Your task to perform on an android device: Add "alienware aurora" to the cart on newegg.com Image 0: 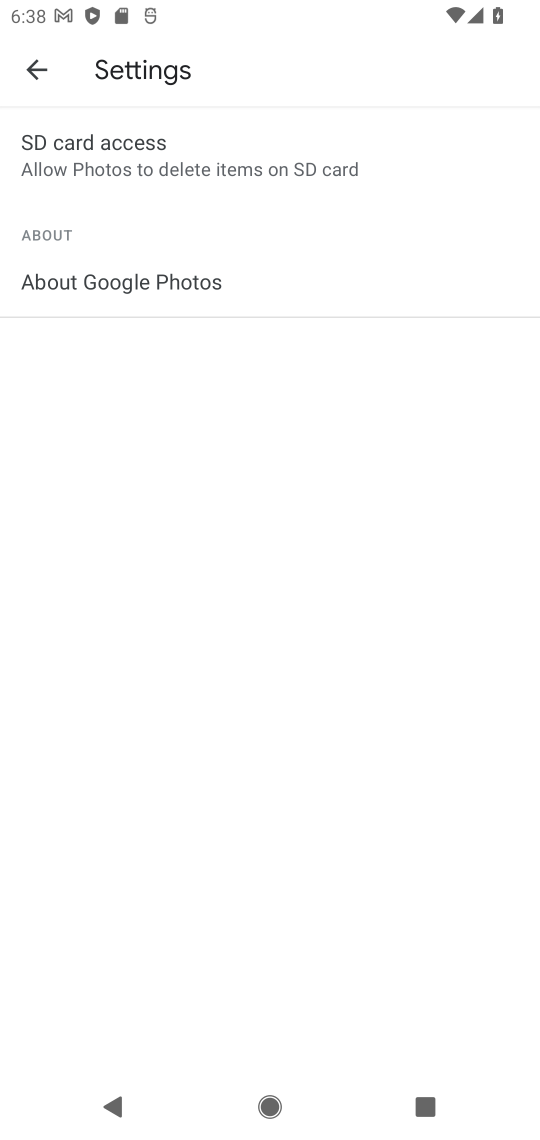
Step 0: press home button
Your task to perform on an android device: Add "alienware aurora" to the cart on newegg.com Image 1: 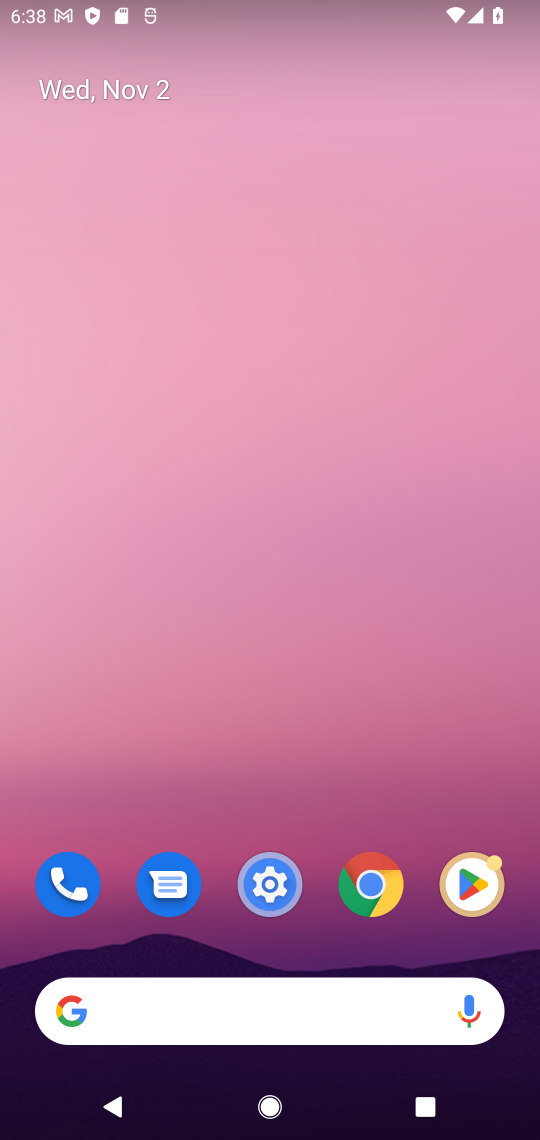
Step 1: click (210, 1039)
Your task to perform on an android device: Add "alienware aurora" to the cart on newegg.com Image 2: 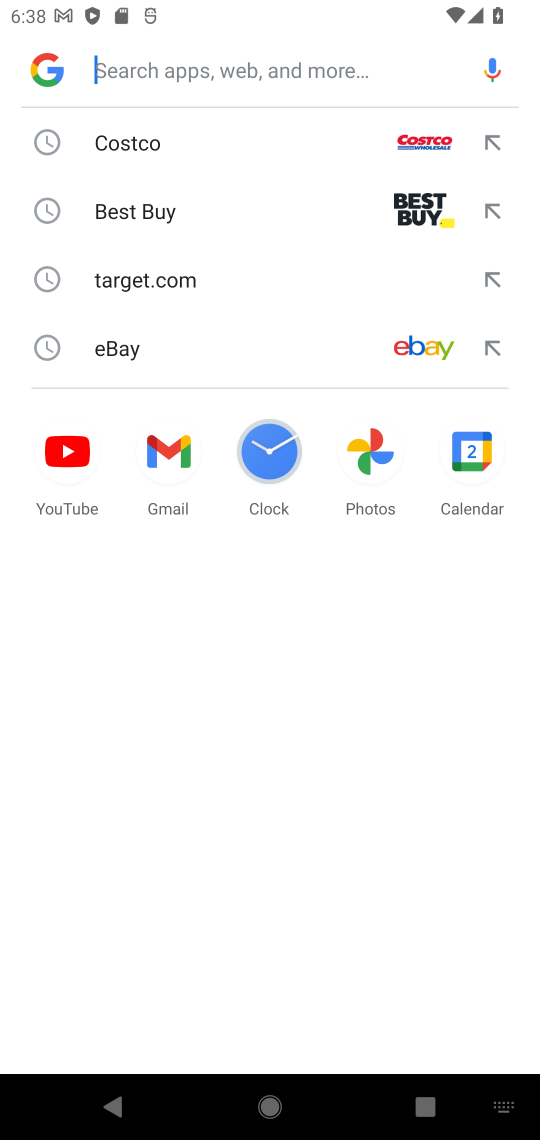
Step 2: type "newegg"
Your task to perform on an android device: Add "alienware aurora" to the cart on newegg.com Image 3: 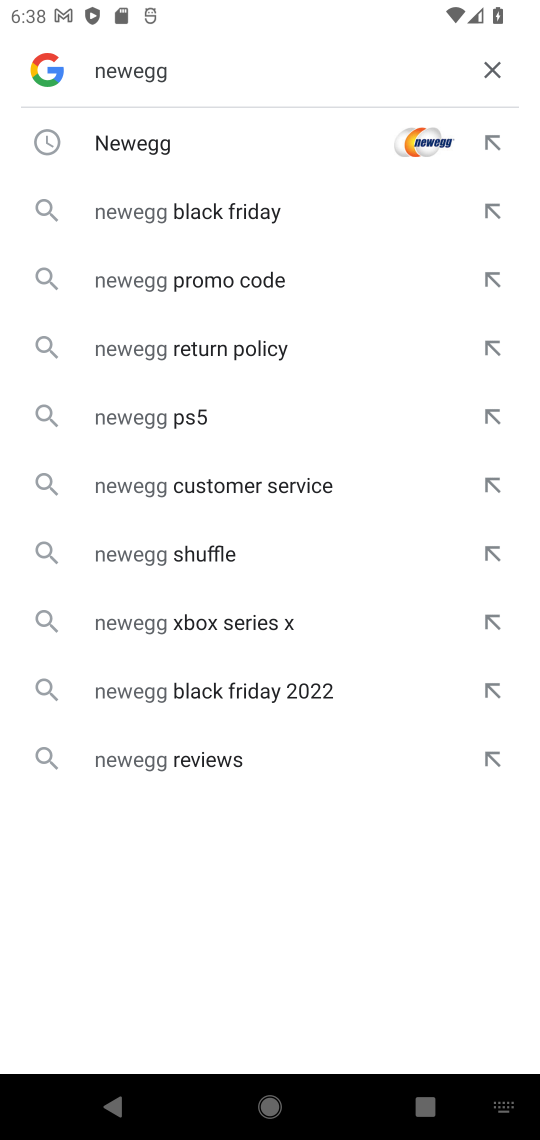
Step 3: click (219, 139)
Your task to perform on an android device: Add "alienware aurora" to the cart on newegg.com Image 4: 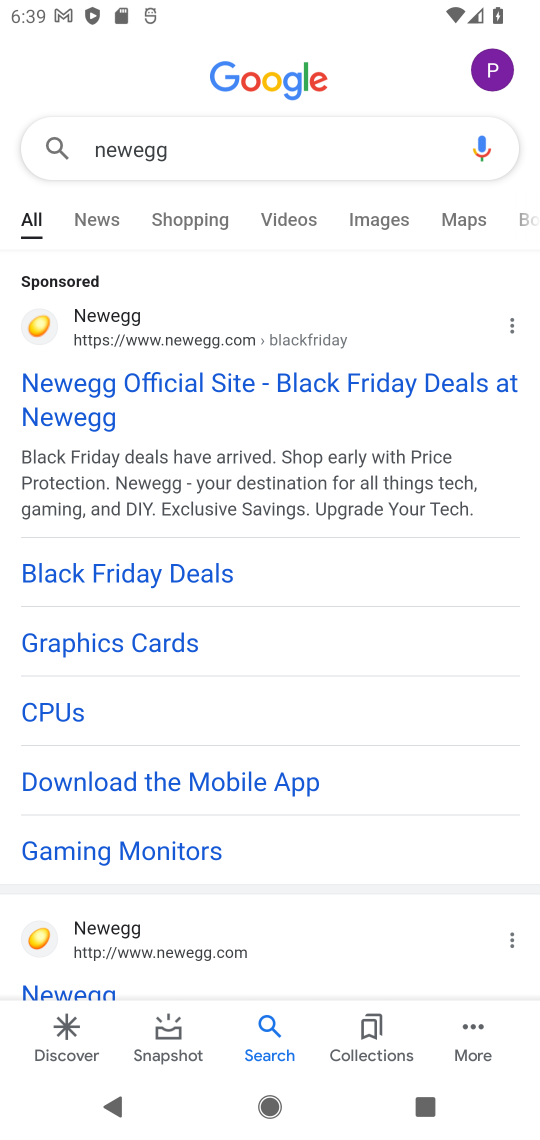
Step 4: click (129, 376)
Your task to perform on an android device: Add "alienware aurora" to the cart on newegg.com Image 5: 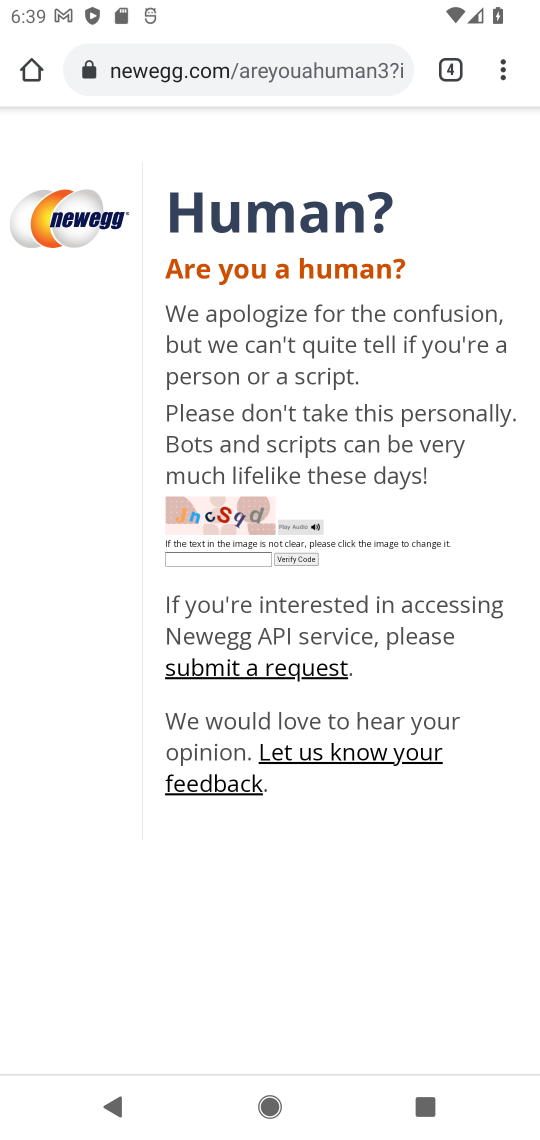
Step 5: click (235, 564)
Your task to perform on an android device: Add "alienware aurora" to the cart on newegg.com Image 6: 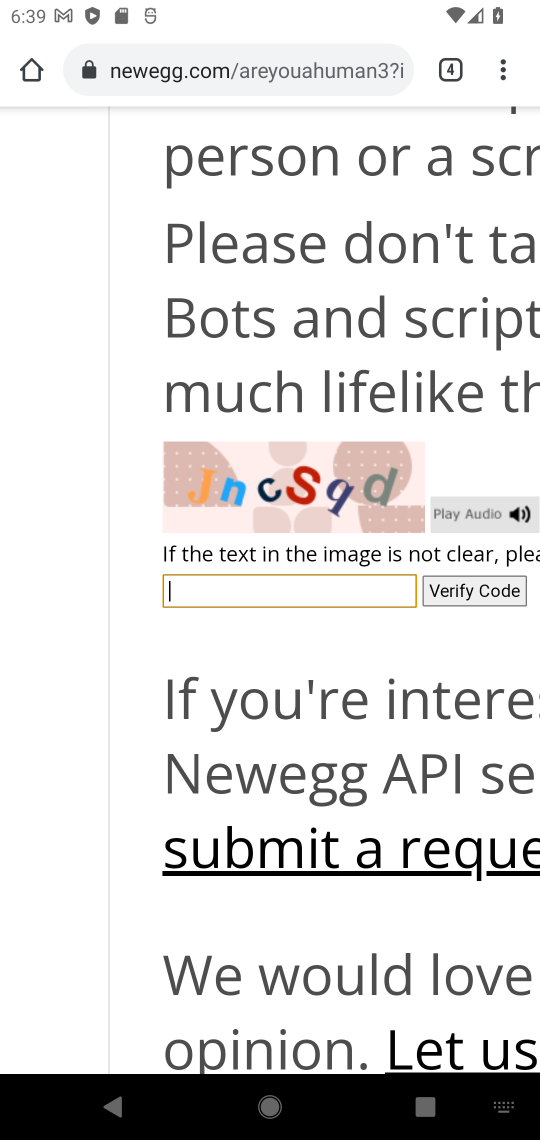
Step 6: type "JncSqd"
Your task to perform on an android device: Add "alienware aurora" to the cart on newegg.com Image 7: 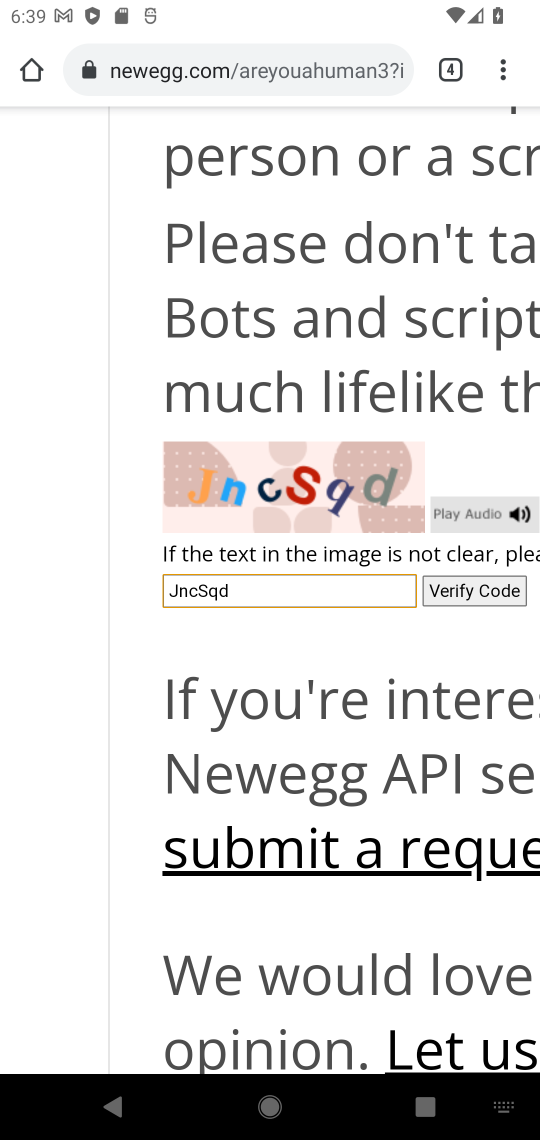
Step 7: click (477, 594)
Your task to perform on an android device: Add "alienware aurora" to the cart on newegg.com Image 8: 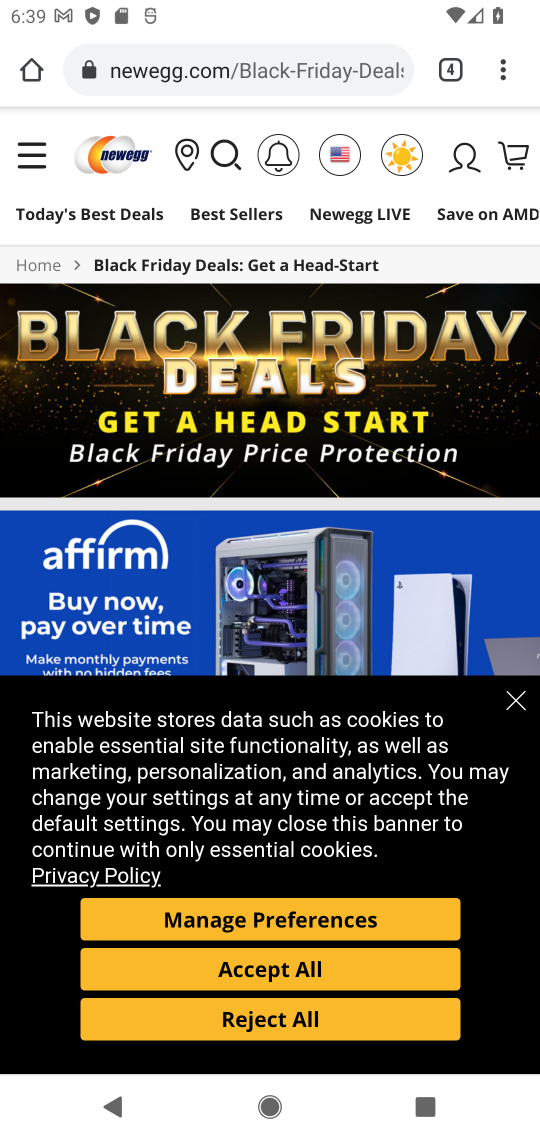
Step 8: click (216, 156)
Your task to perform on an android device: Add "alienware aurora" to the cart on newegg.com Image 9: 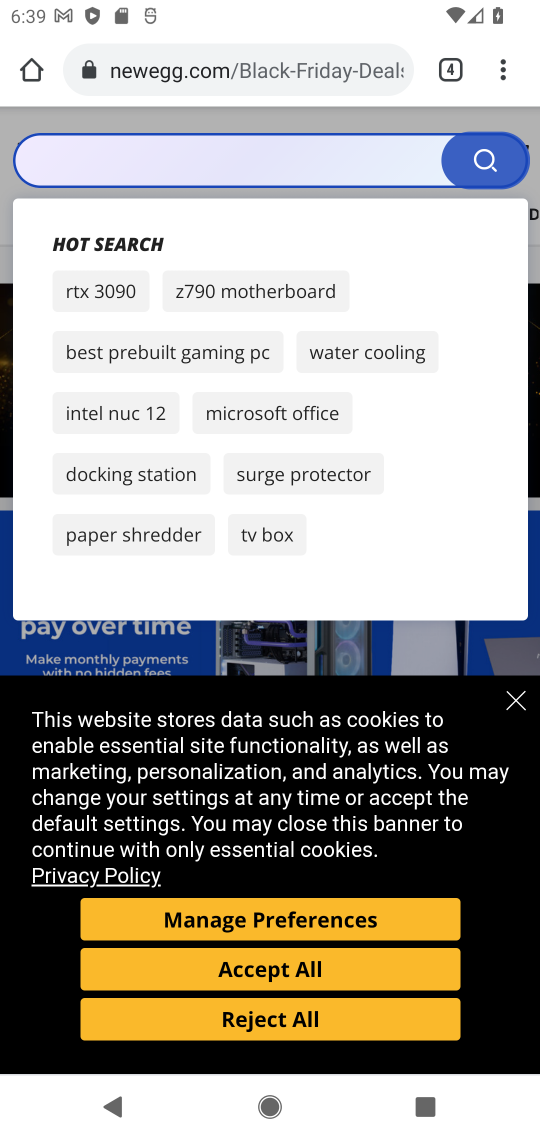
Step 9: click (216, 156)
Your task to perform on an android device: Add "alienware aurora" to the cart on newegg.com Image 10: 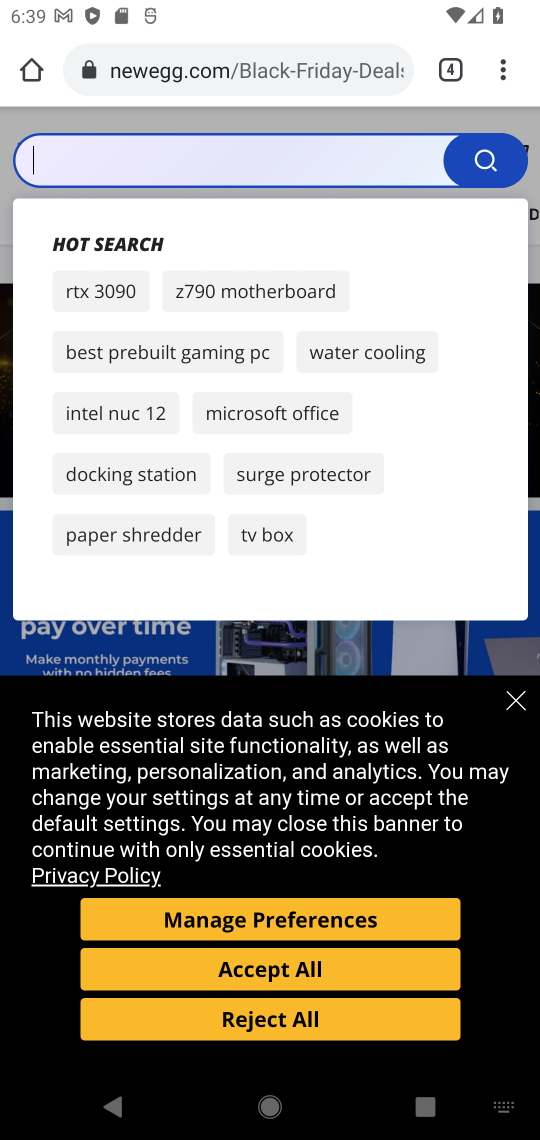
Step 10: type "alienware aurora"
Your task to perform on an android device: Add "alienware aurora" to the cart on newegg.com Image 11: 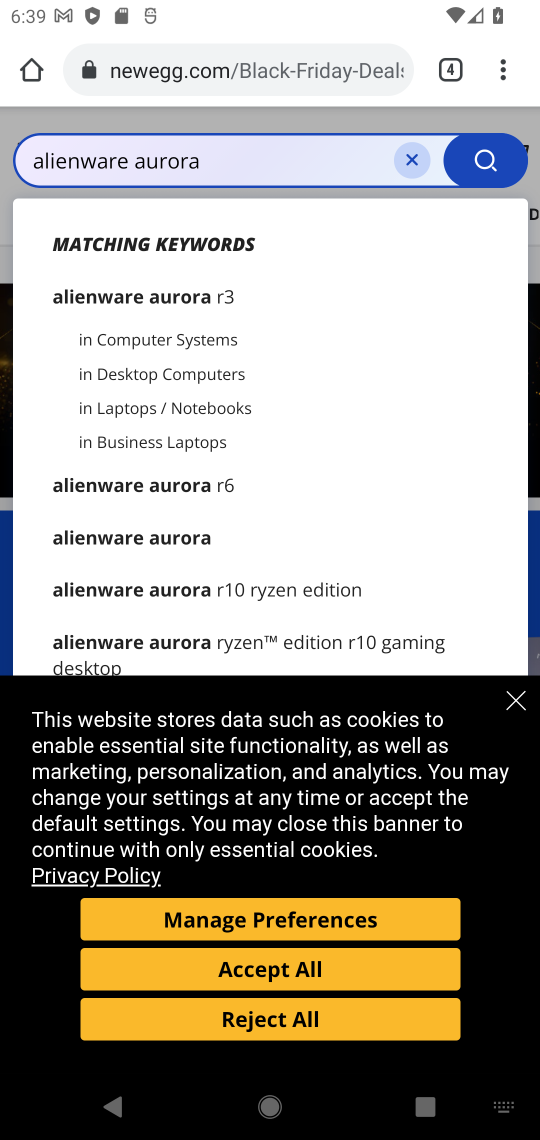
Step 11: click (476, 167)
Your task to perform on an android device: Add "alienware aurora" to the cart on newegg.com Image 12: 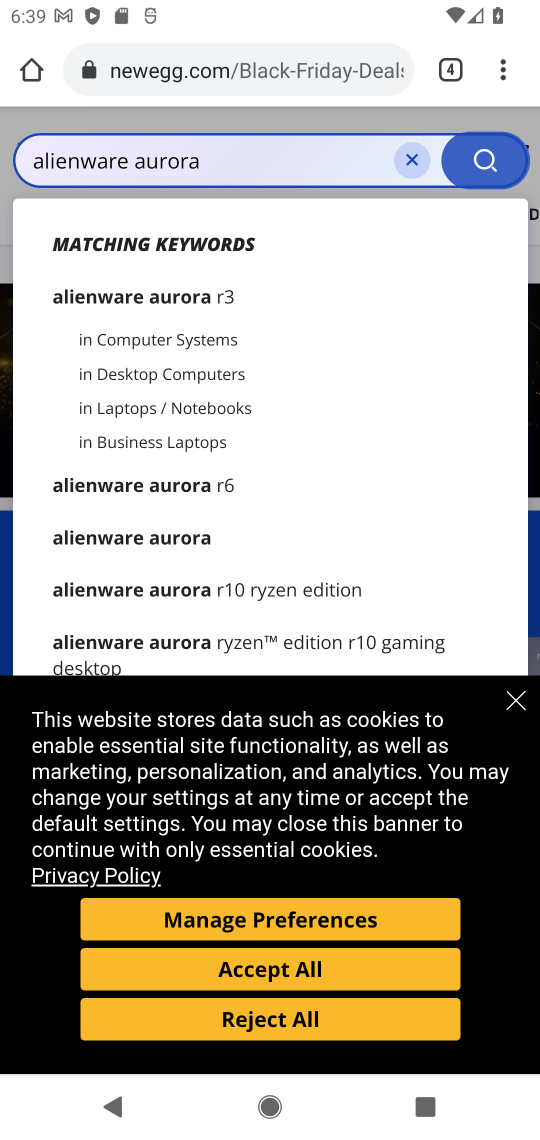
Step 12: click (336, 973)
Your task to perform on an android device: Add "alienware aurora" to the cart on newegg.com Image 13: 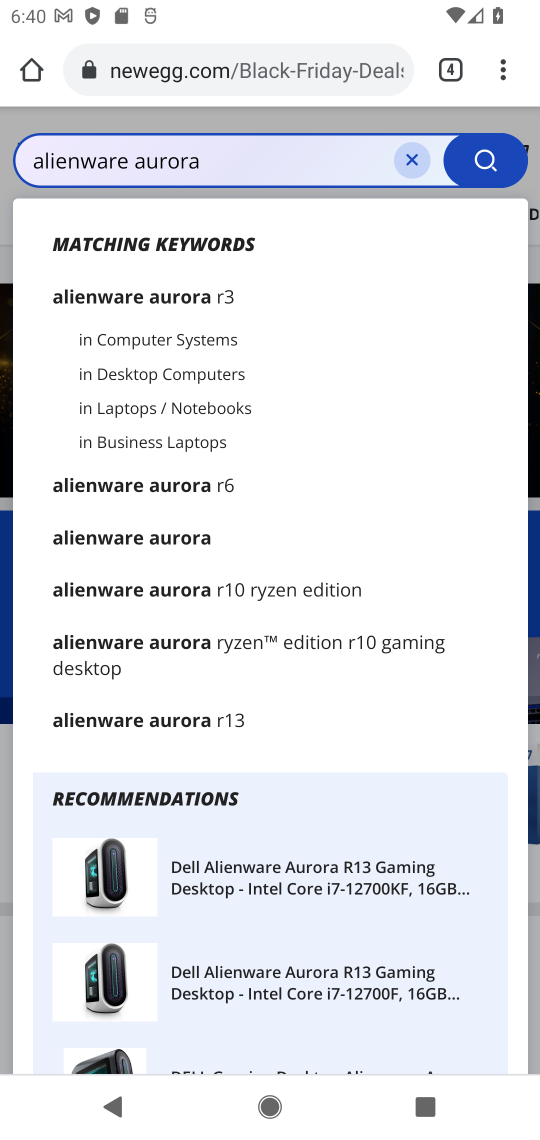
Step 13: click (487, 146)
Your task to perform on an android device: Add "alienware aurora" to the cart on newegg.com Image 14: 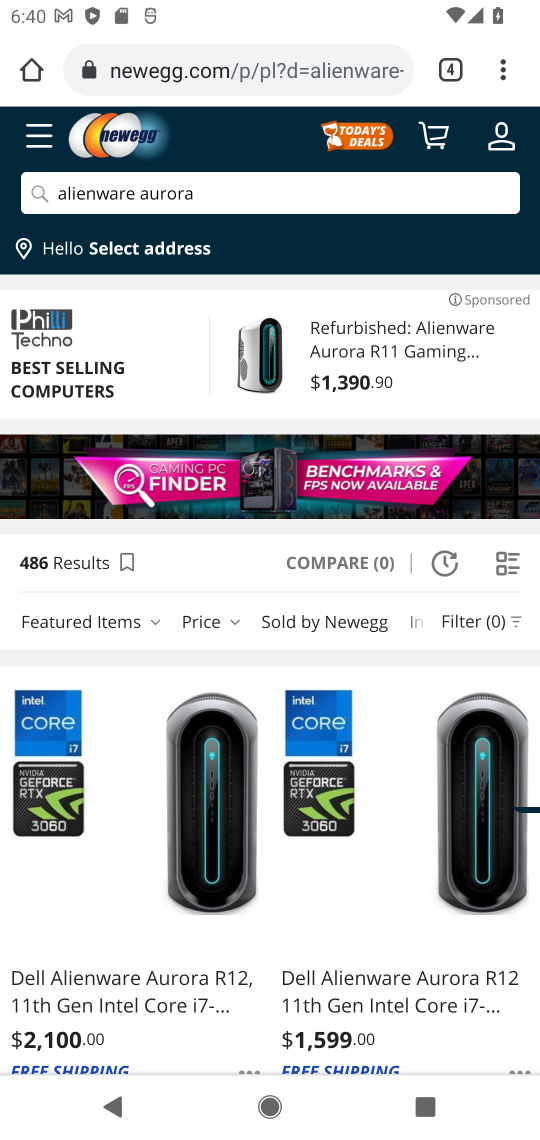
Step 14: click (205, 304)
Your task to perform on an android device: Add "alienware aurora" to the cart on newegg.com Image 15: 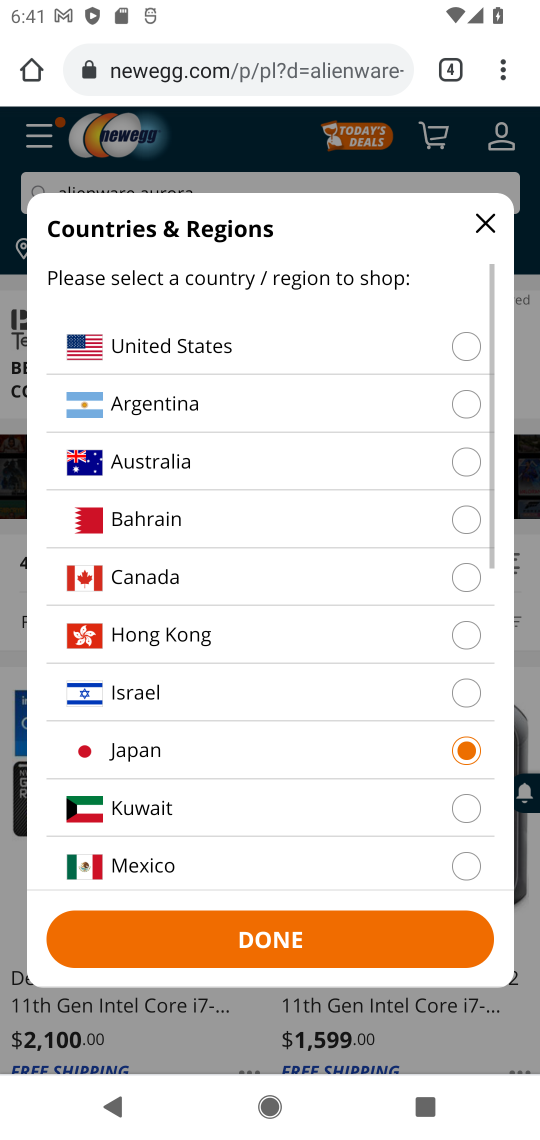
Step 15: click (309, 360)
Your task to perform on an android device: Add "alienware aurora" to the cart on newegg.com Image 16: 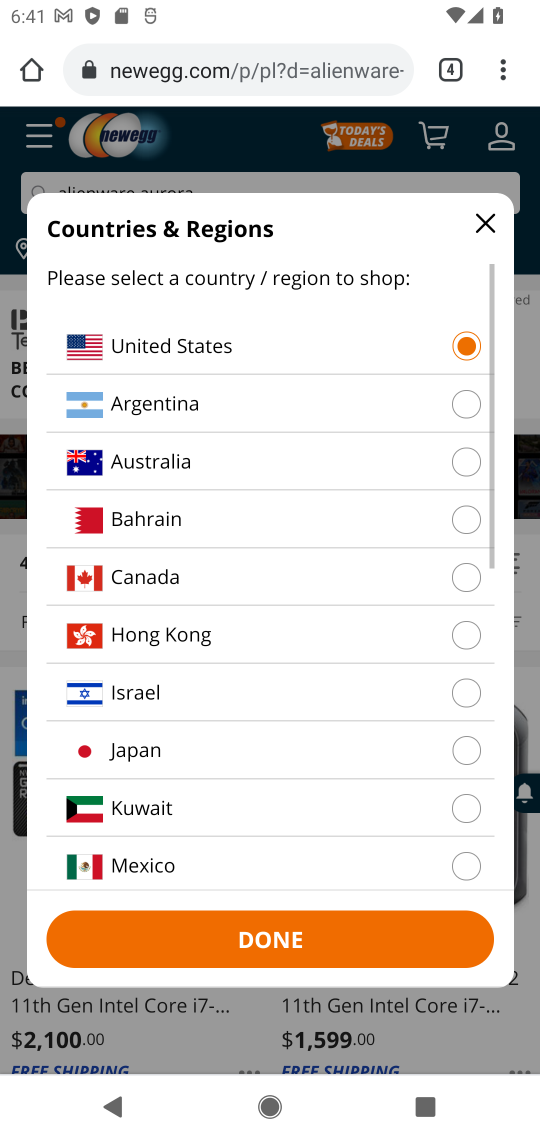
Step 16: click (326, 970)
Your task to perform on an android device: Add "alienware aurora" to the cart on newegg.com Image 17: 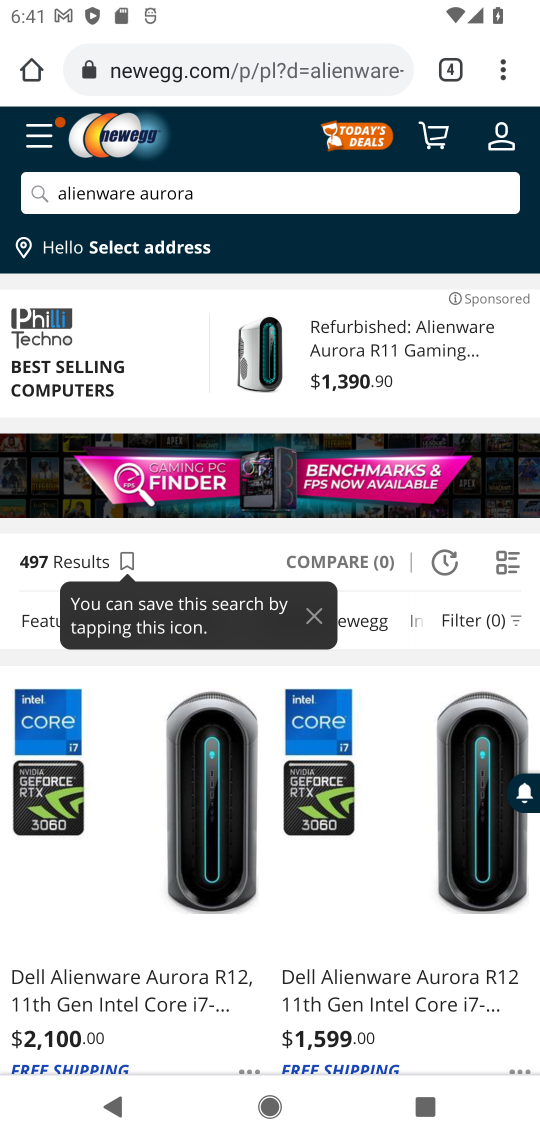
Step 17: task complete